Your task to perform on an android device: Check the weather Image 0: 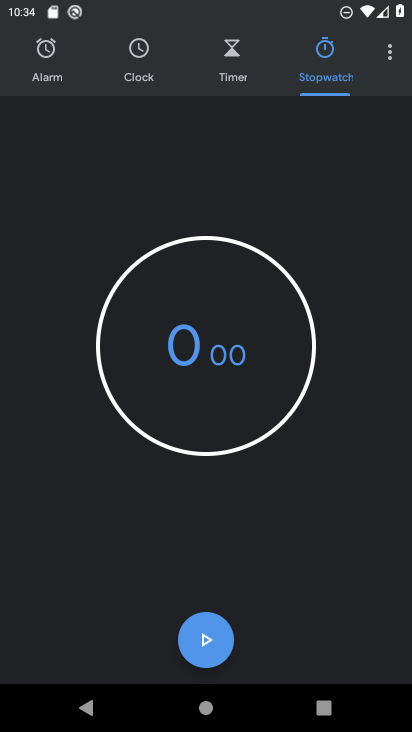
Step 0: press home button
Your task to perform on an android device: Check the weather Image 1: 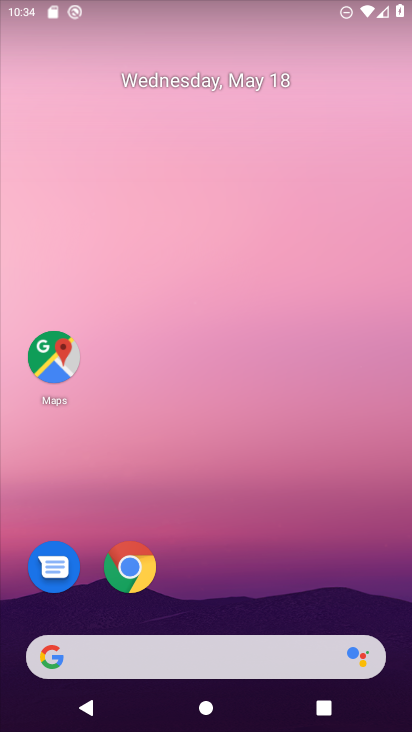
Step 1: drag from (280, 664) to (258, 177)
Your task to perform on an android device: Check the weather Image 2: 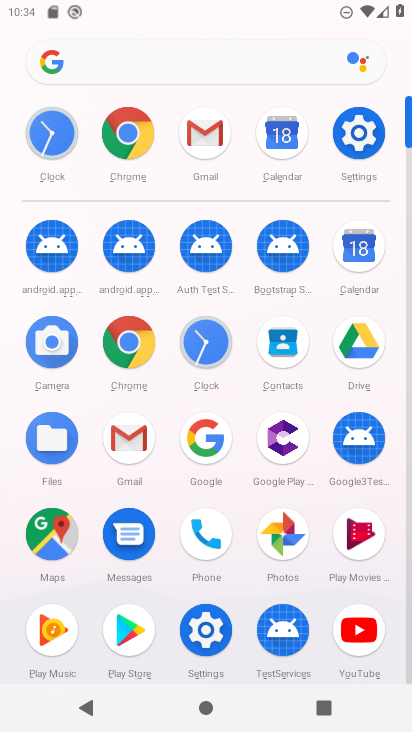
Step 2: click (154, 59)
Your task to perform on an android device: Check the weather Image 3: 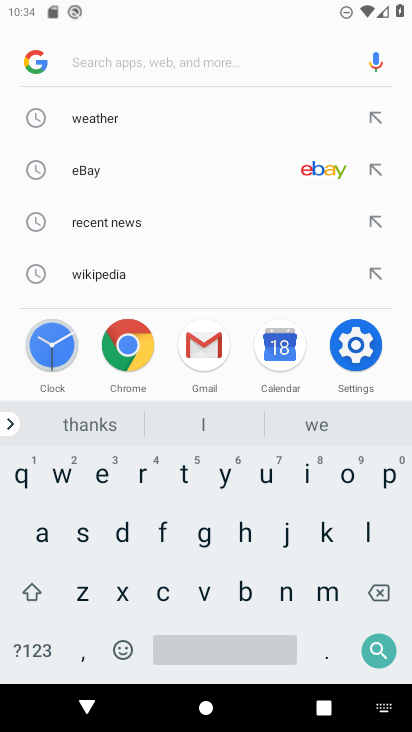
Step 3: click (81, 115)
Your task to perform on an android device: Check the weather Image 4: 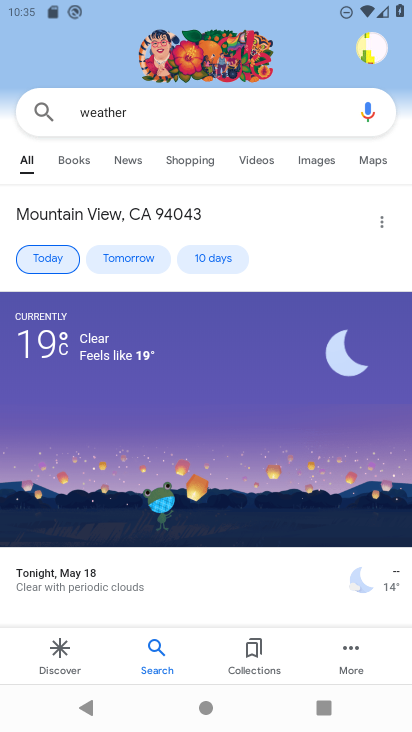
Step 4: task complete